Your task to perform on an android device: read, delete, or share a saved page in the chrome app Image 0: 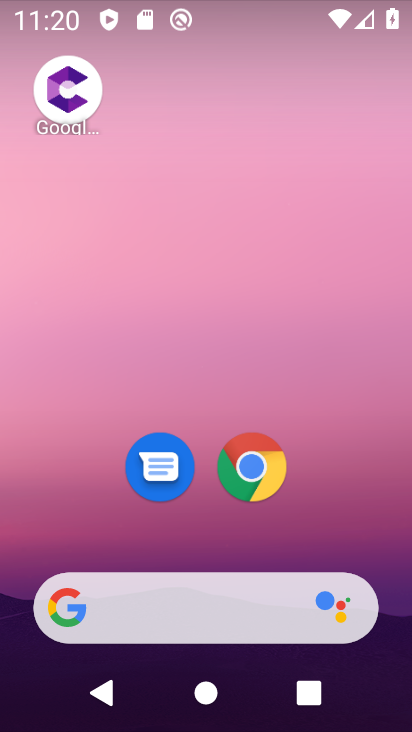
Step 0: click (254, 462)
Your task to perform on an android device: read, delete, or share a saved page in the chrome app Image 1: 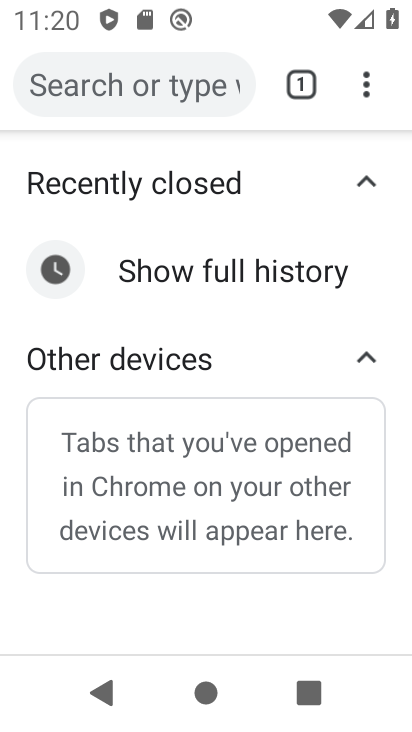
Step 1: click (367, 92)
Your task to perform on an android device: read, delete, or share a saved page in the chrome app Image 2: 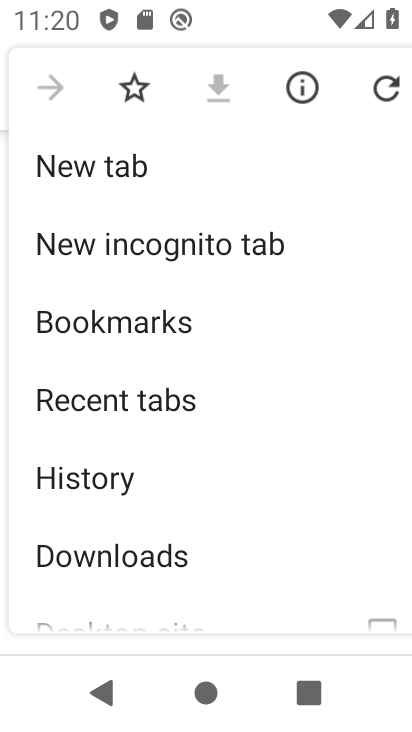
Step 2: click (118, 557)
Your task to perform on an android device: read, delete, or share a saved page in the chrome app Image 3: 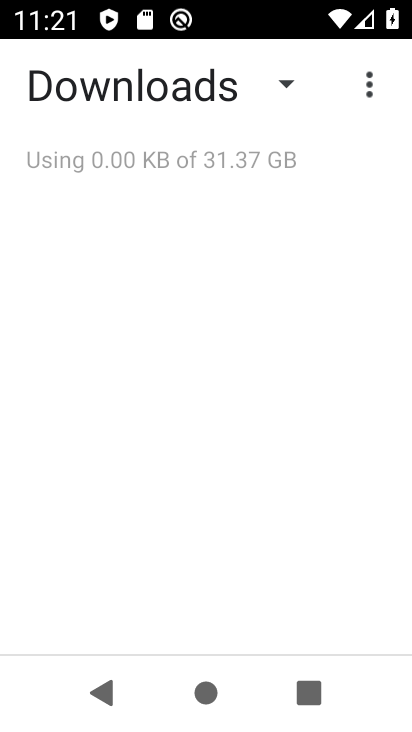
Step 3: click (279, 87)
Your task to perform on an android device: read, delete, or share a saved page in the chrome app Image 4: 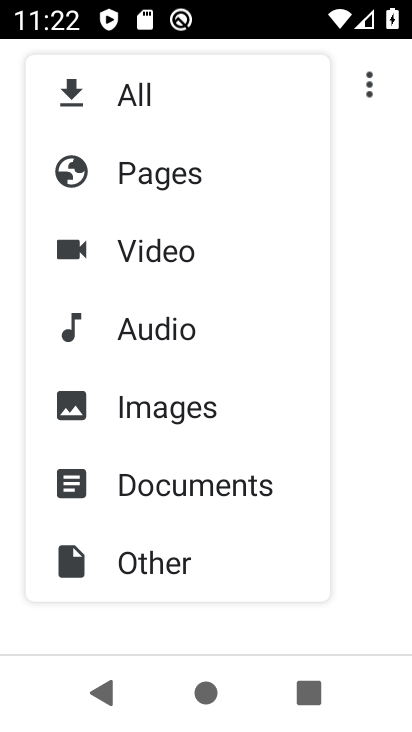
Step 4: click (157, 168)
Your task to perform on an android device: read, delete, or share a saved page in the chrome app Image 5: 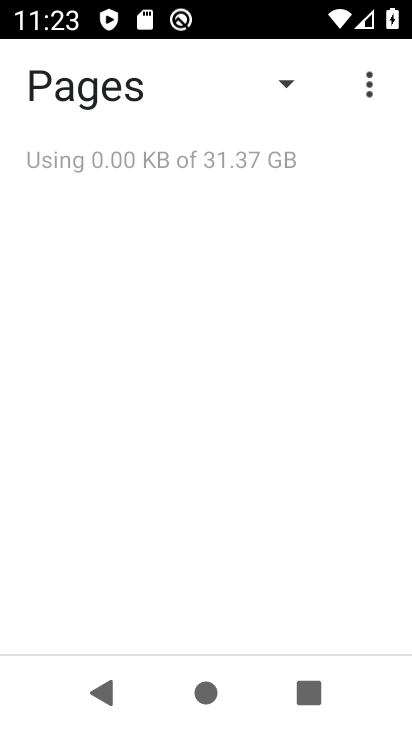
Step 5: task complete